Your task to perform on an android device: Open battery settings Image 0: 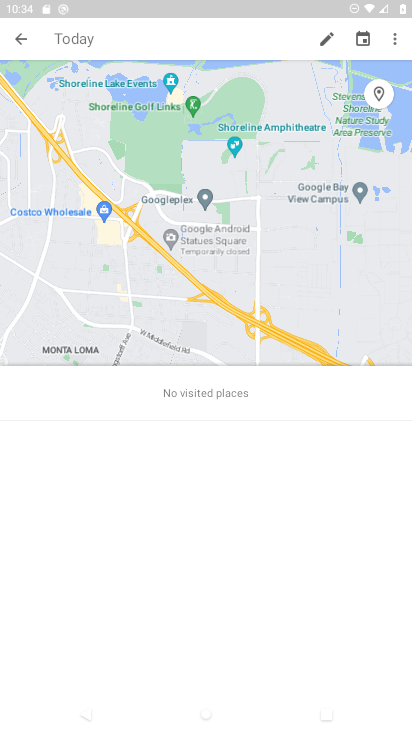
Step 0: press home button
Your task to perform on an android device: Open battery settings Image 1: 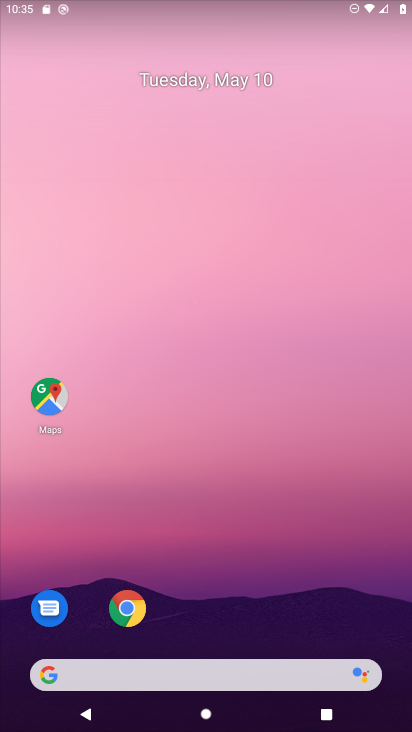
Step 1: drag from (229, 558) to (244, 210)
Your task to perform on an android device: Open battery settings Image 2: 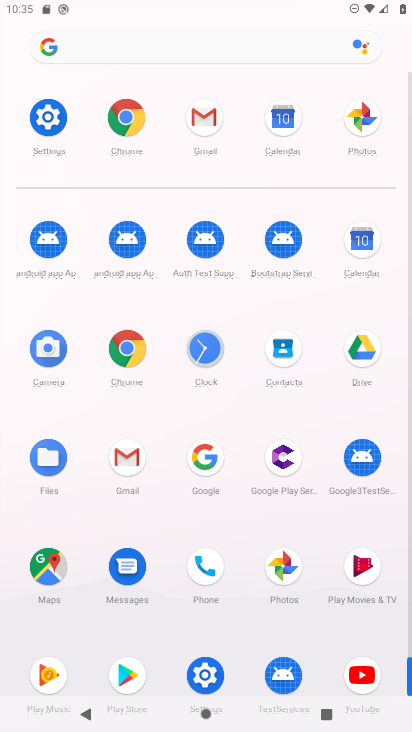
Step 2: click (43, 111)
Your task to perform on an android device: Open battery settings Image 3: 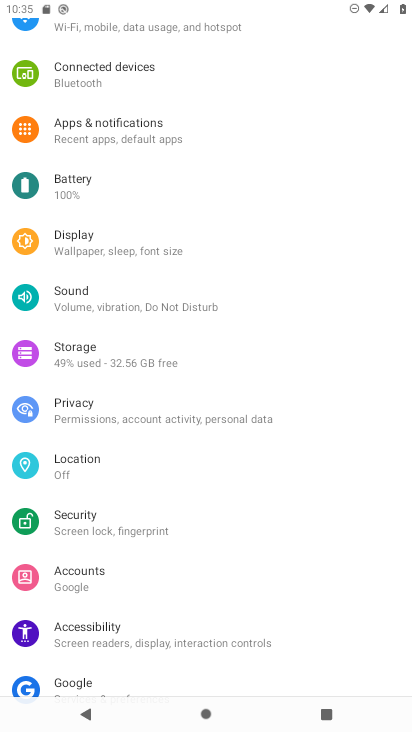
Step 3: click (82, 186)
Your task to perform on an android device: Open battery settings Image 4: 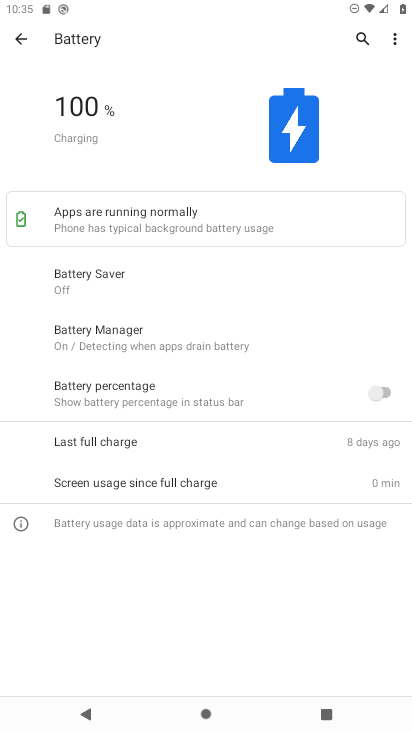
Step 4: task complete